Your task to perform on an android device: find photos in the google photos app Image 0: 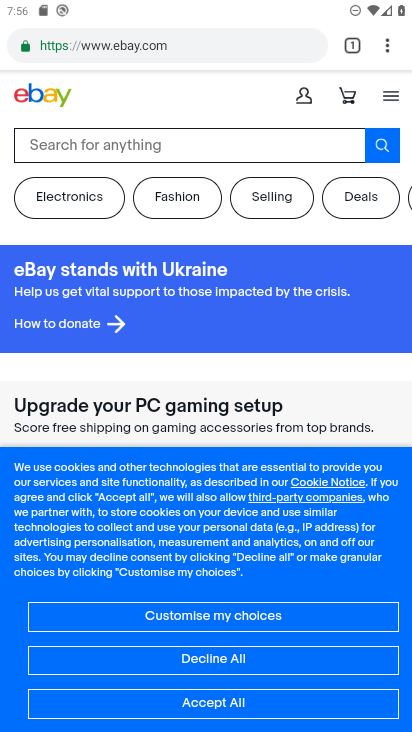
Step 0: press home button
Your task to perform on an android device: find photos in the google photos app Image 1: 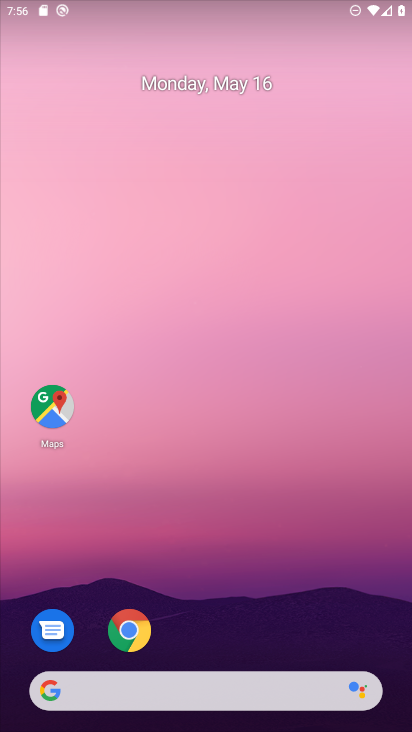
Step 1: drag from (193, 580) to (227, 115)
Your task to perform on an android device: find photos in the google photos app Image 2: 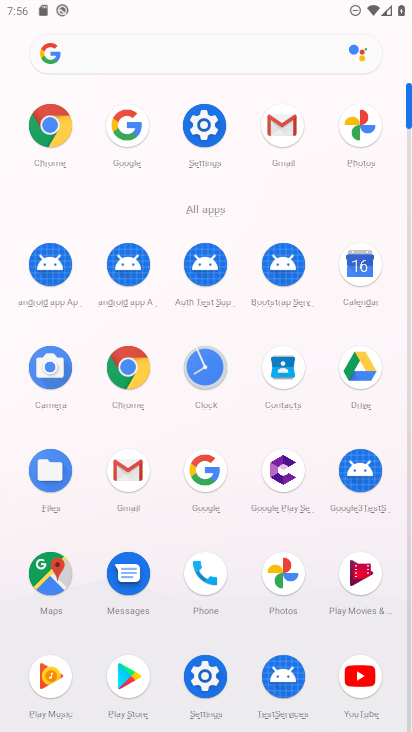
Step 2: click (368, 132)
Your task to perform on an android device: find photos in the google photos app Image 3: 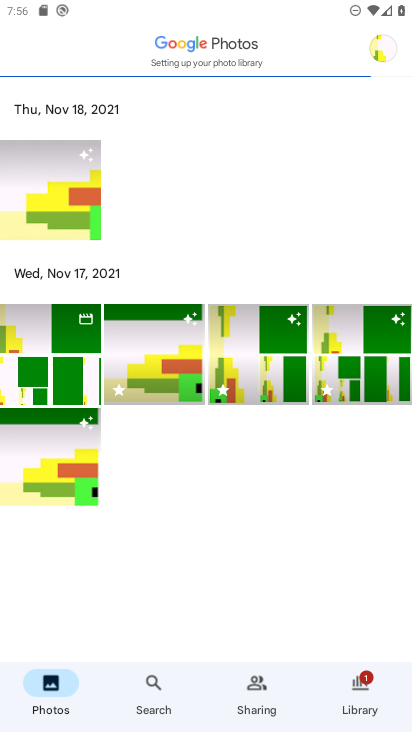
Step 3: task complete